Your task to perform on an android device: Is it going to rain today? Image 0: 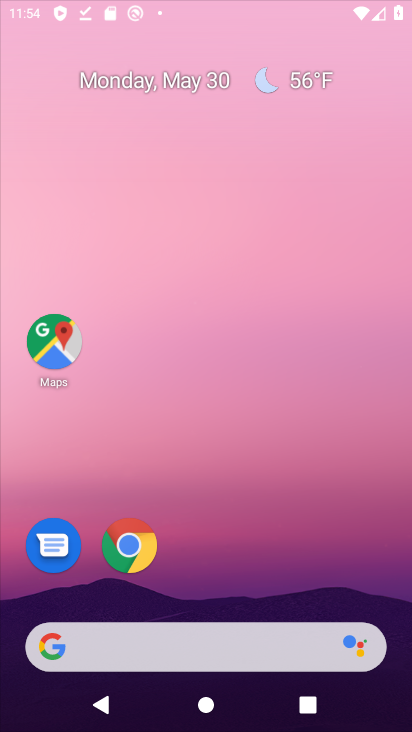
Step 0: drag from (238, 563) to (173, 243)
Your task to perform on an android device: Is it going to rain today? Image 1: 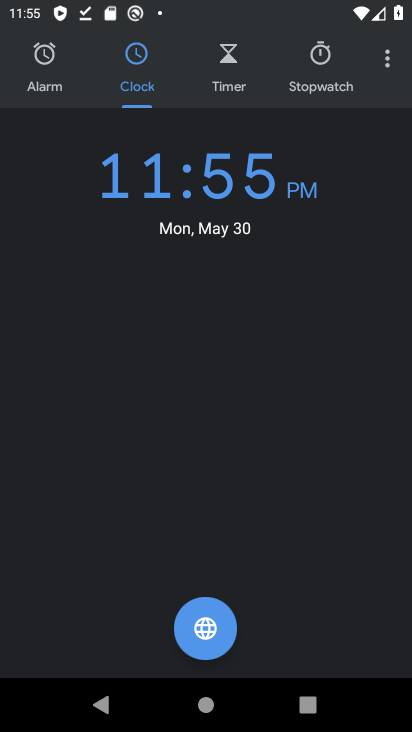
Step 1: press back button
Your task to perform on an android device: Is it going to rain today? Image 2: 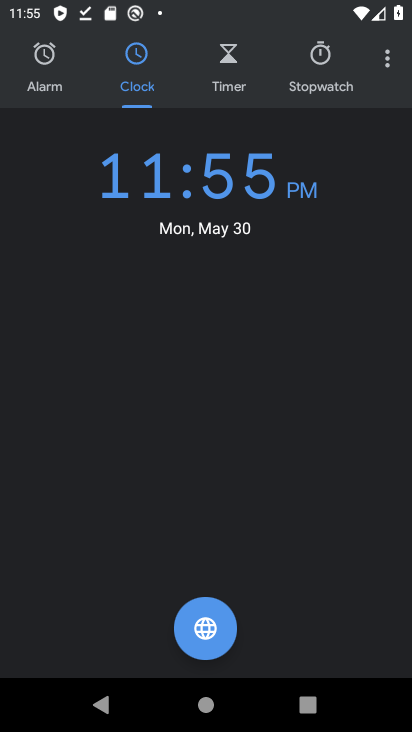
Step 2: press back button
Your task to perform on an android device: Is it going to rain today? Image 3: 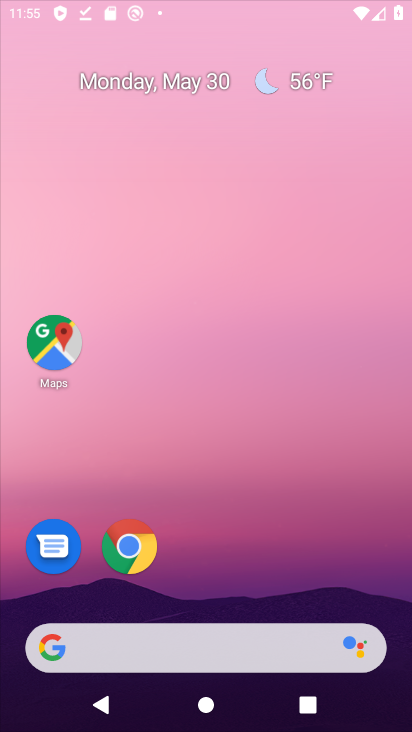
Step 3: press back button
Your task to perform on an android device: Is it going to rain today? Image 4: 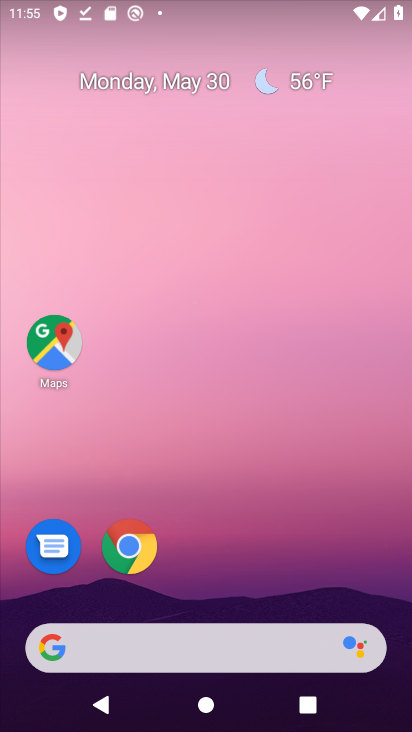
Step 4: press back button
Your task to perform on an android device: Is it going to rain today? Image 5: 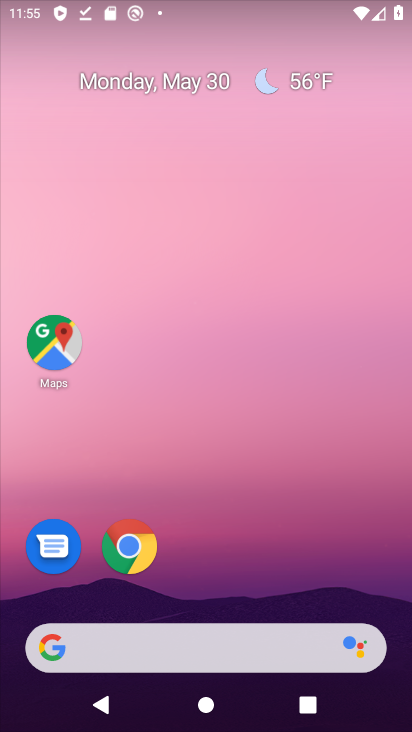
Step 5: press back button
Your task to perform on an android device: Is it going to rain today? Image 6: 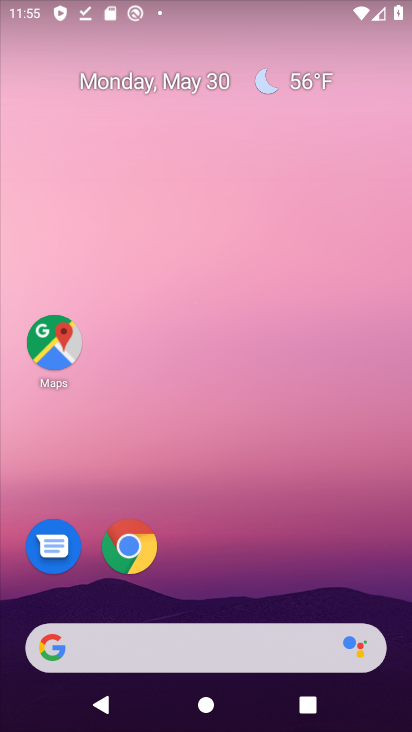
Step 6: press back button
Your task to perform on an android device: Is it going to rain today? Image 7: 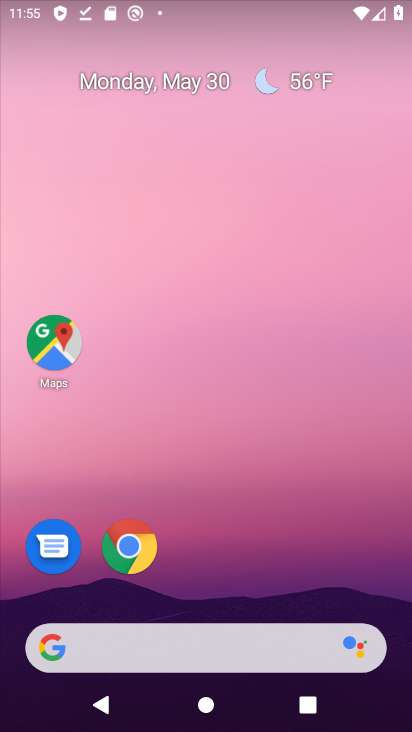
Step 7: drag from (19, 206) to (404, 543)
Your task to perform on an android device: Is it going to rain today? Image 8: 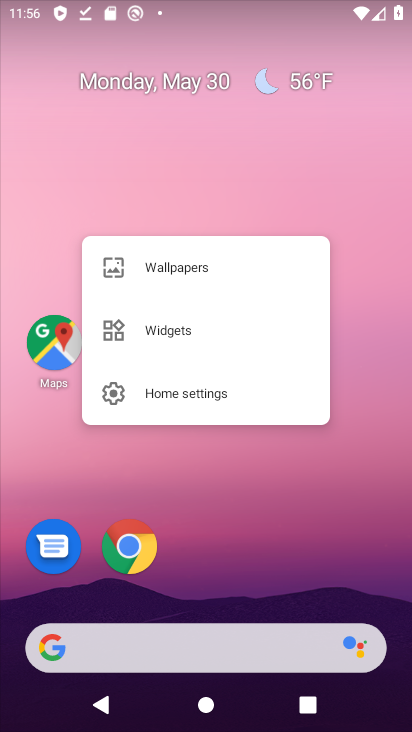
Step 8: click (363, 500)
Your task to perform on an android device: Is it going to rain today? Image 9: 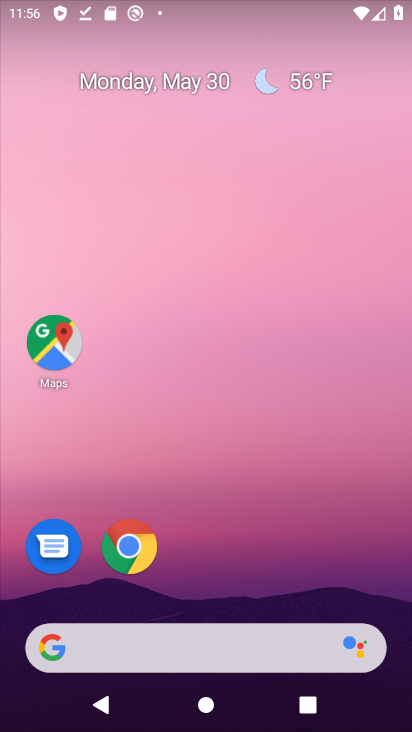
Step 9: click (395, 491)
Your task to perform on an android device: Is it going to rain today? Image 10: 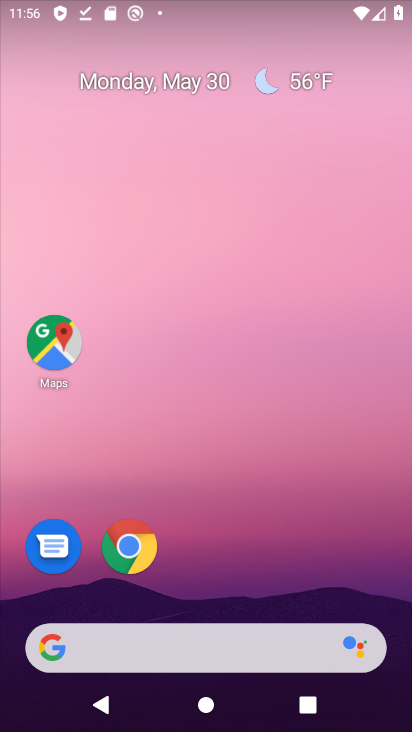
Step 10: click (381, 413)
Your task to perform on an android device: Is it going to rain today? Image 11: 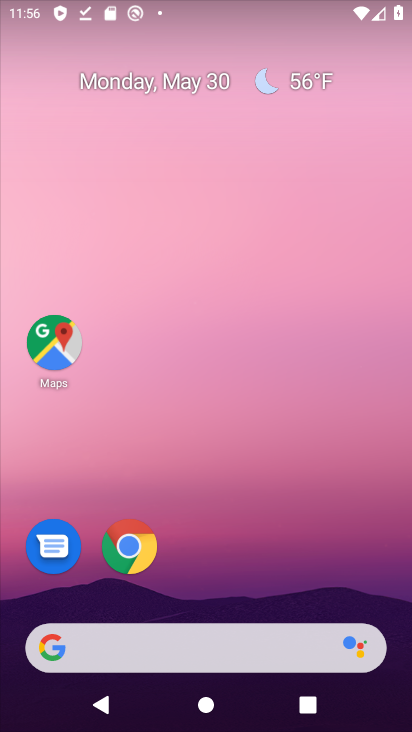
Step 11: click (258, 367)
Your task to perform on an android device: Is it going to rain today? Image 12: 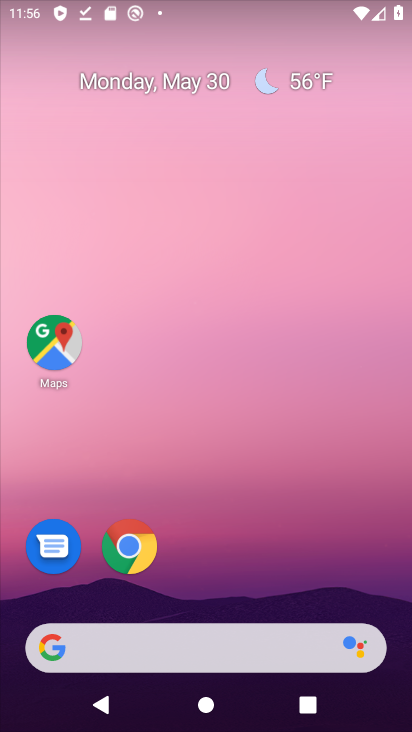
Step 12: drag from (67, 269) to (298, 477)
Your task to perform on an android device: Is it going to rain today? Image 13: 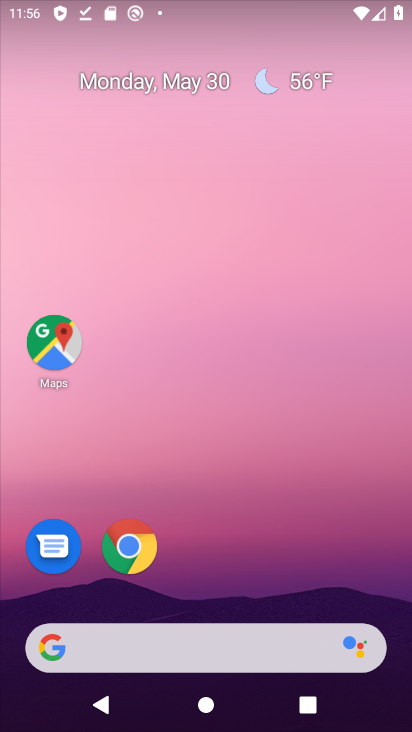
Step 13: click (285, 426)
Your task to perform on an android device: Is it going to rain today? Image 14: 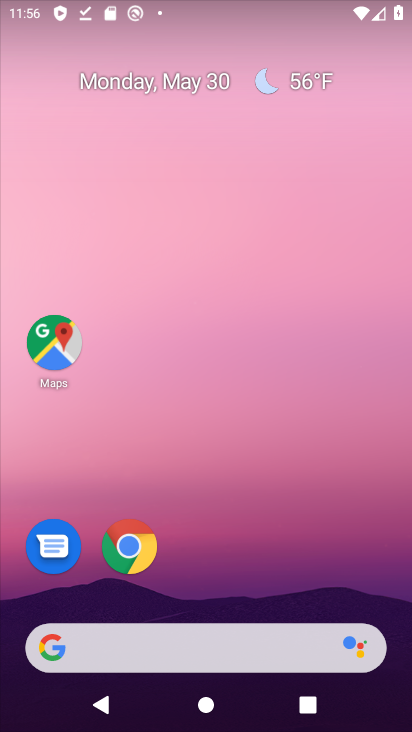
Step 14: click (381, 413)
Your task to perform on an android device: Is it going to rain today? Image 15: 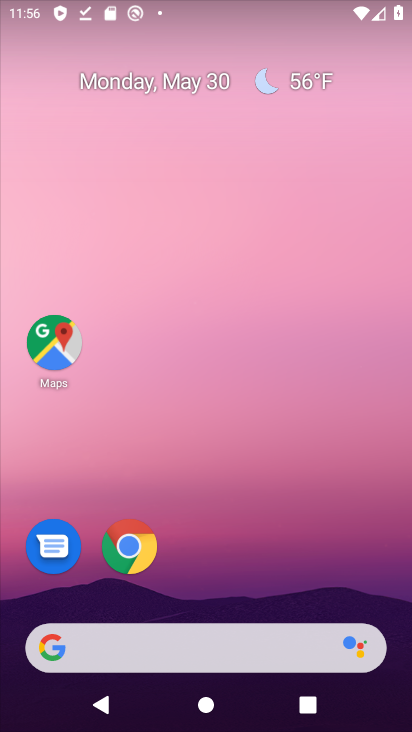
Step 15: drag from (356, 417) to (366, 557)
Your task to perform on an android device: Is it going to rain today? Image 16: 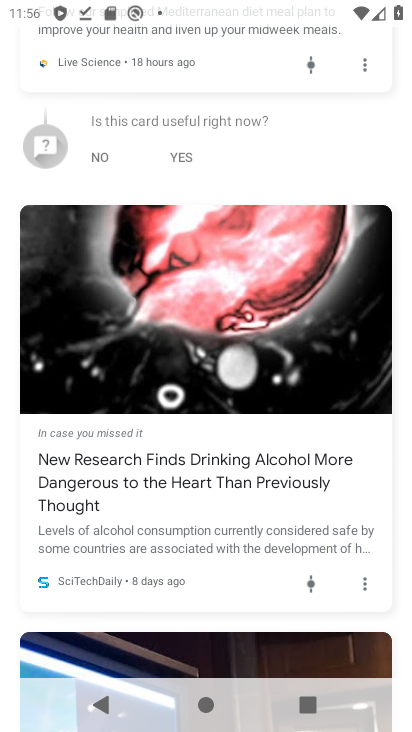
Step 16: drag from (238, 377) to (376, 584)
Your task to perform on an android device: Is it going to rain today? Image 17: 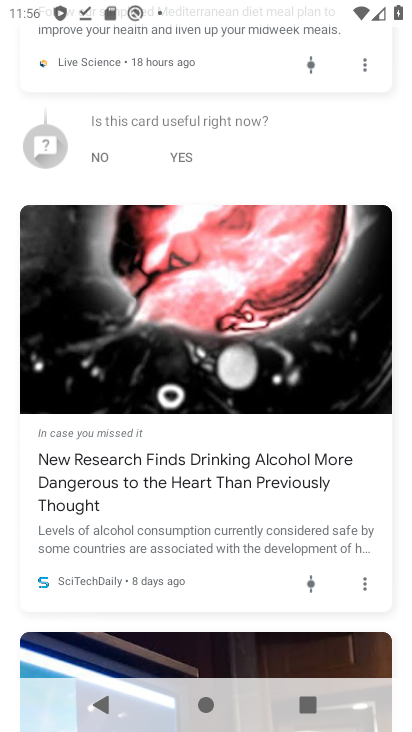
Step 17: click (245, 471)
Your task to perform on an android device: Is it going to rain today? Image 18: 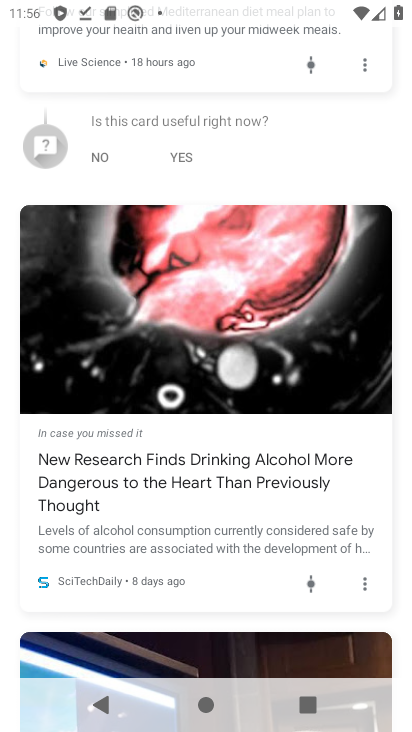
Step 18: drag from (216, 344) to (213, 468)
Your task to perform on an android device: Is it going to rain today? Image 19: 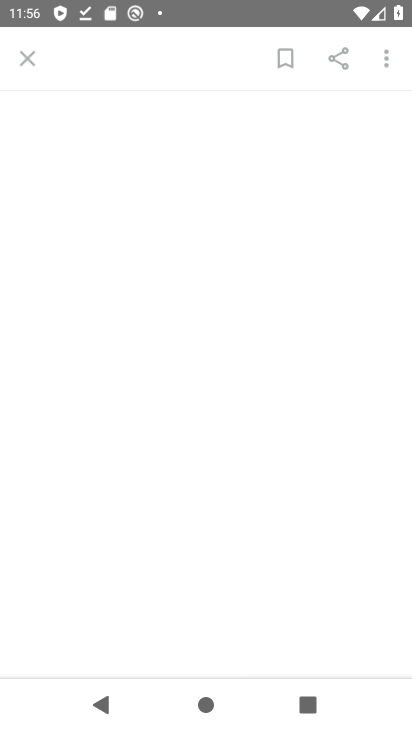
Step 19: drag from (170, 418) to (207, 507)
Your task to perform on an android device: Is it going to rain today? Image 20: 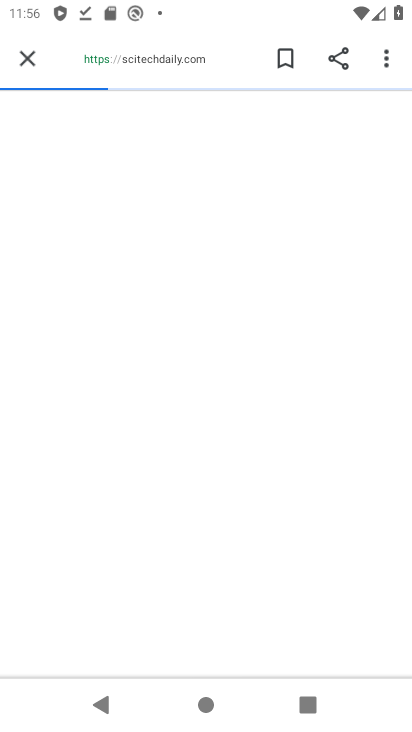
Step 20: drag from (238, 590) to (228, 495)
Your task to perform on an android device: Is it going to rain today? Image 21: 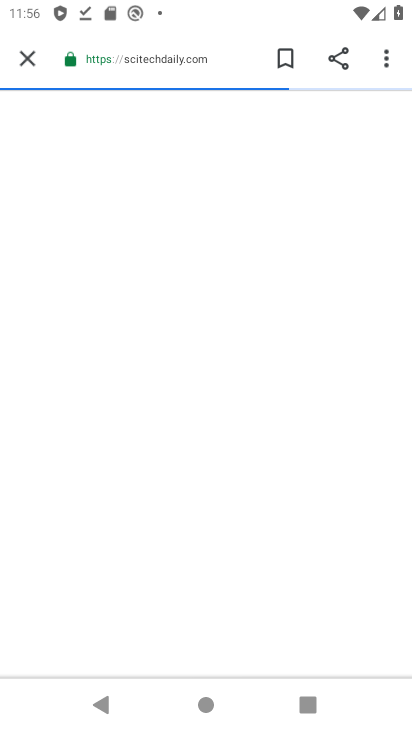
Step 21: drag from (175, 531) to (131, 399)
Your task to perform on an android device: Is it going to rain today? Image 22: 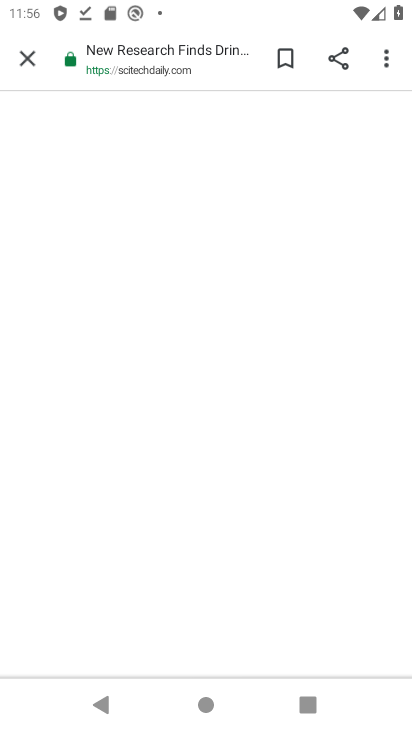
Step 22: click (210, 414)
Your task to perform on an android device: Is it going to rain today? Image 23: 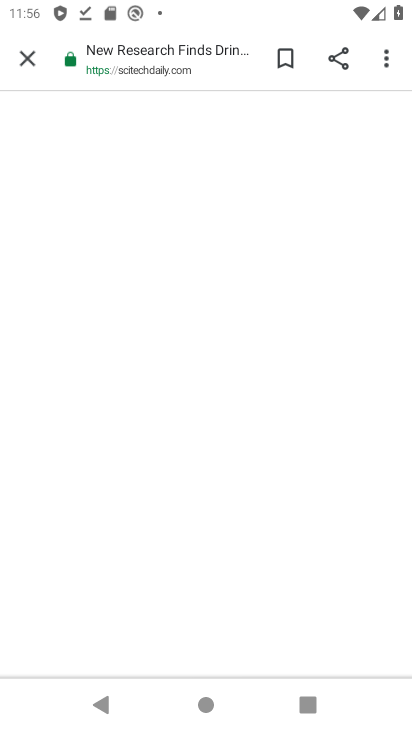
Step 23: click (187, 318)
Your task to perform on an android device: Is it going to rain today? Image 24: 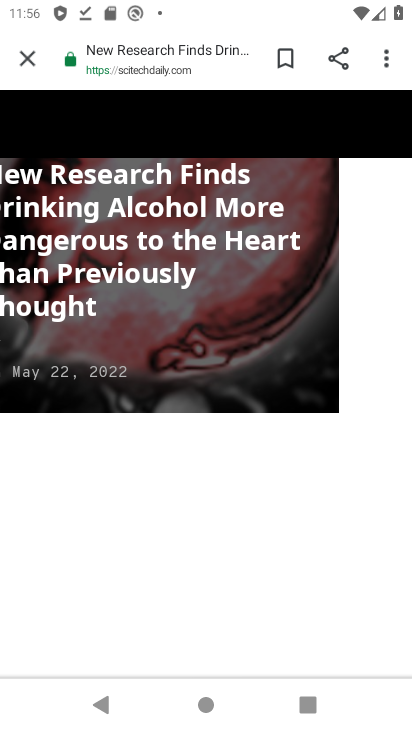
Step 24: click (175, 411)
Your task to perform on an android device: Is it going to rain today? Image 25: 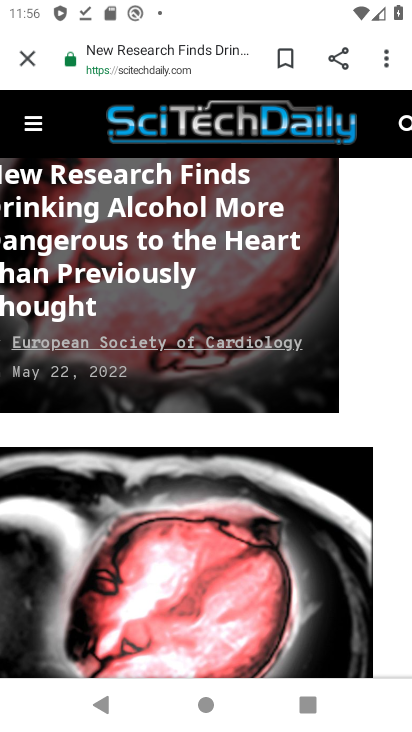
Step 25: click (145, 53)
Your task to perform on an android device: Is it going to rain today? Image 26: 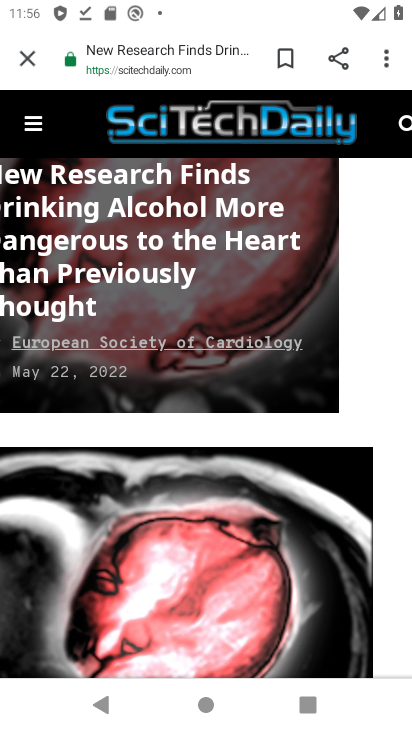
Step 26: task complete